Your task to perform on an android device: What's on my calendar today? Image 0: 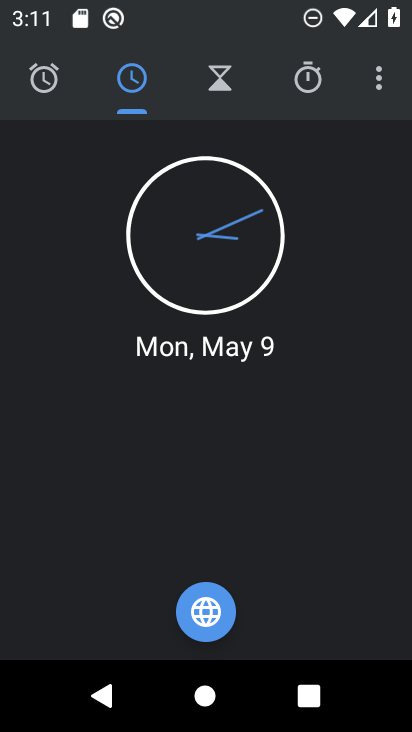
Step 0: press home button
Your task to perform on an android device: What's on my calendar today? Image 1: 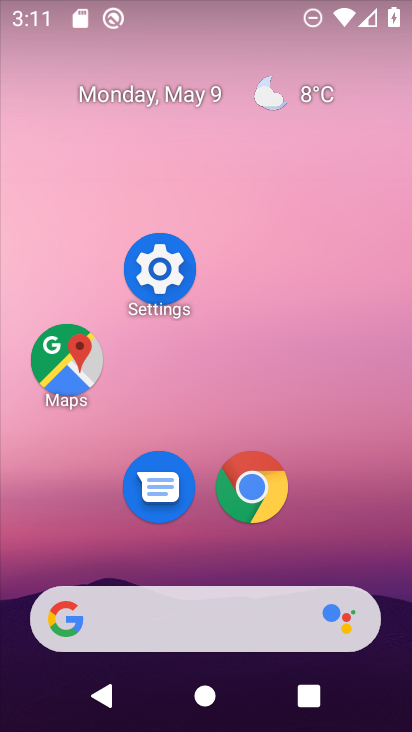
Step 1: drag from (347, 515) to (295, 10)
Your task to perform on an android device: What's on my calendar today? Image 2: 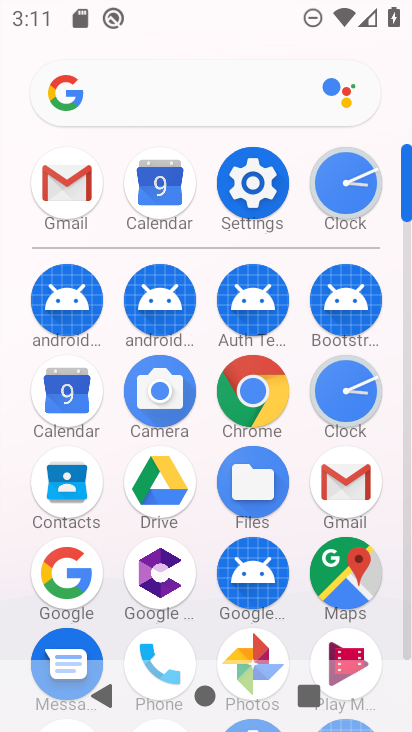
Step 2: click (71, 381)
Your task to perform on an android device: What's on my calendar today? Image 3: 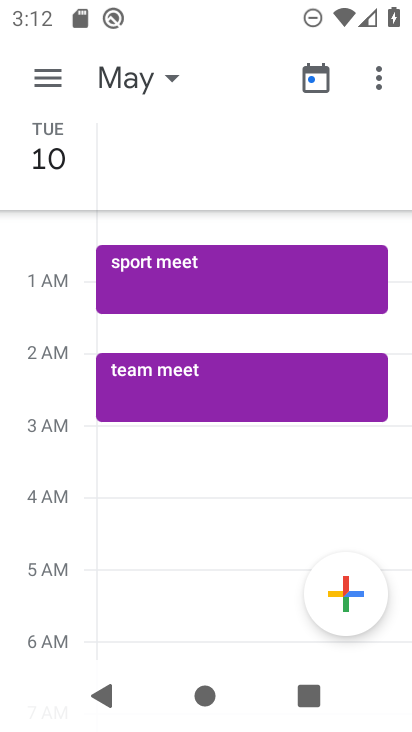
Step 3: click (116, 68)
Your task to perform on an android device: What's on my calendar today? Image 4: 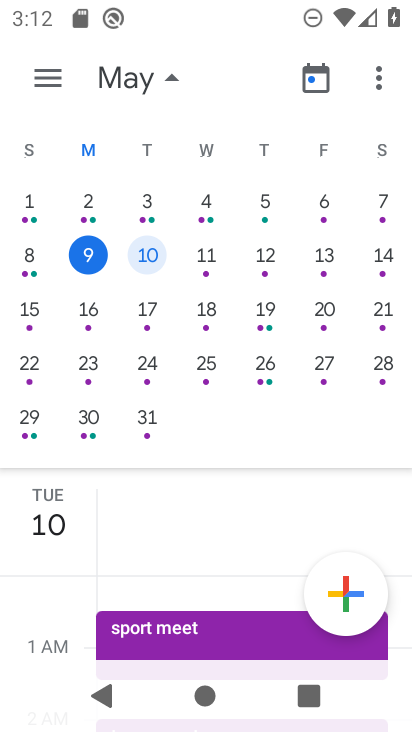
Step 4: click (89, 268)
Your task to perform on an android device: What's on my calendar today? Image 5: 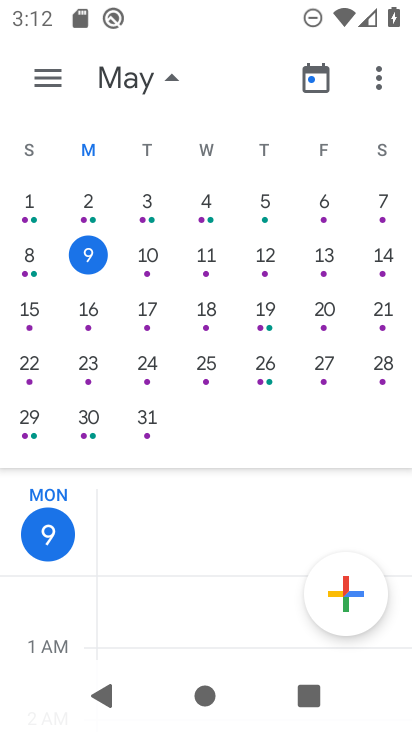
Step 5: task complete